Your task to perform on an android device: find photos in the google photos app Image 0: 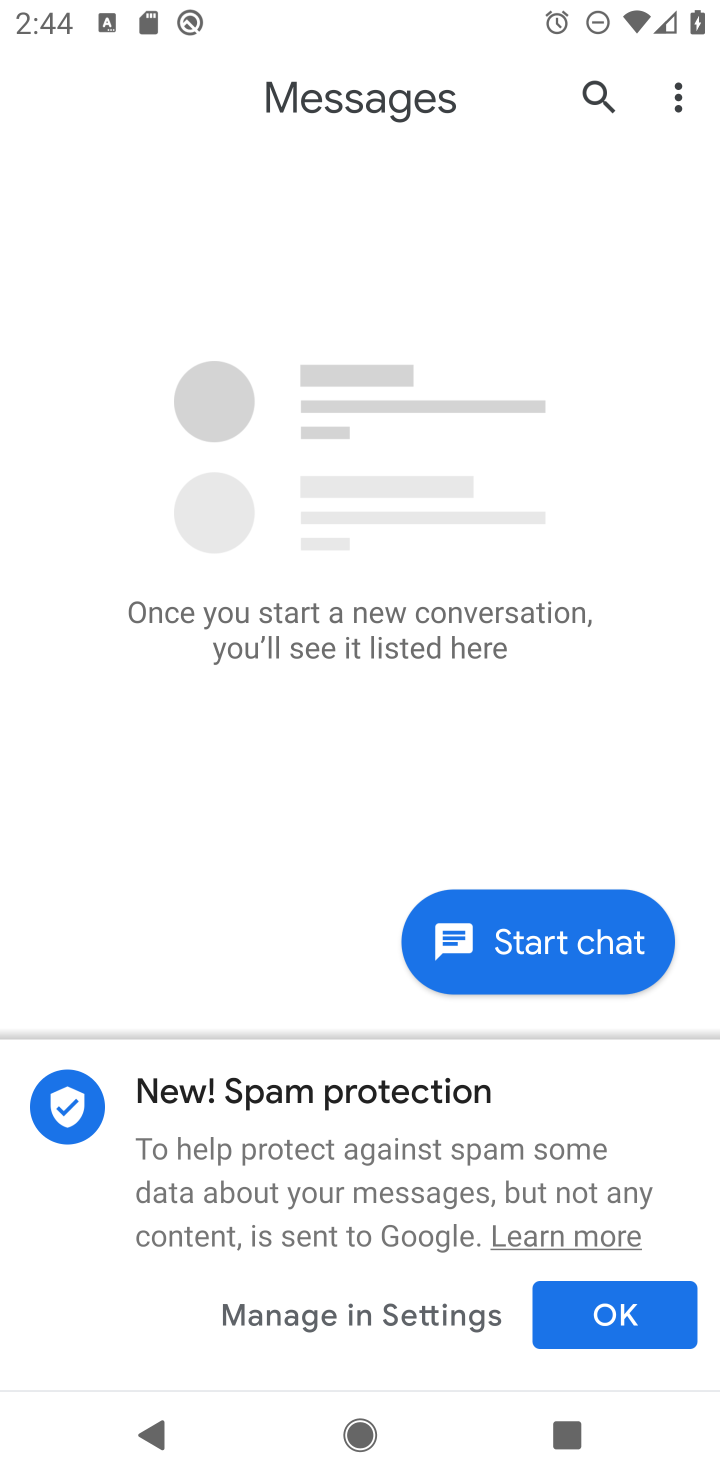
Step 0: press home button
Your task to perform on an android device: find photos in the google photos app Image 1: 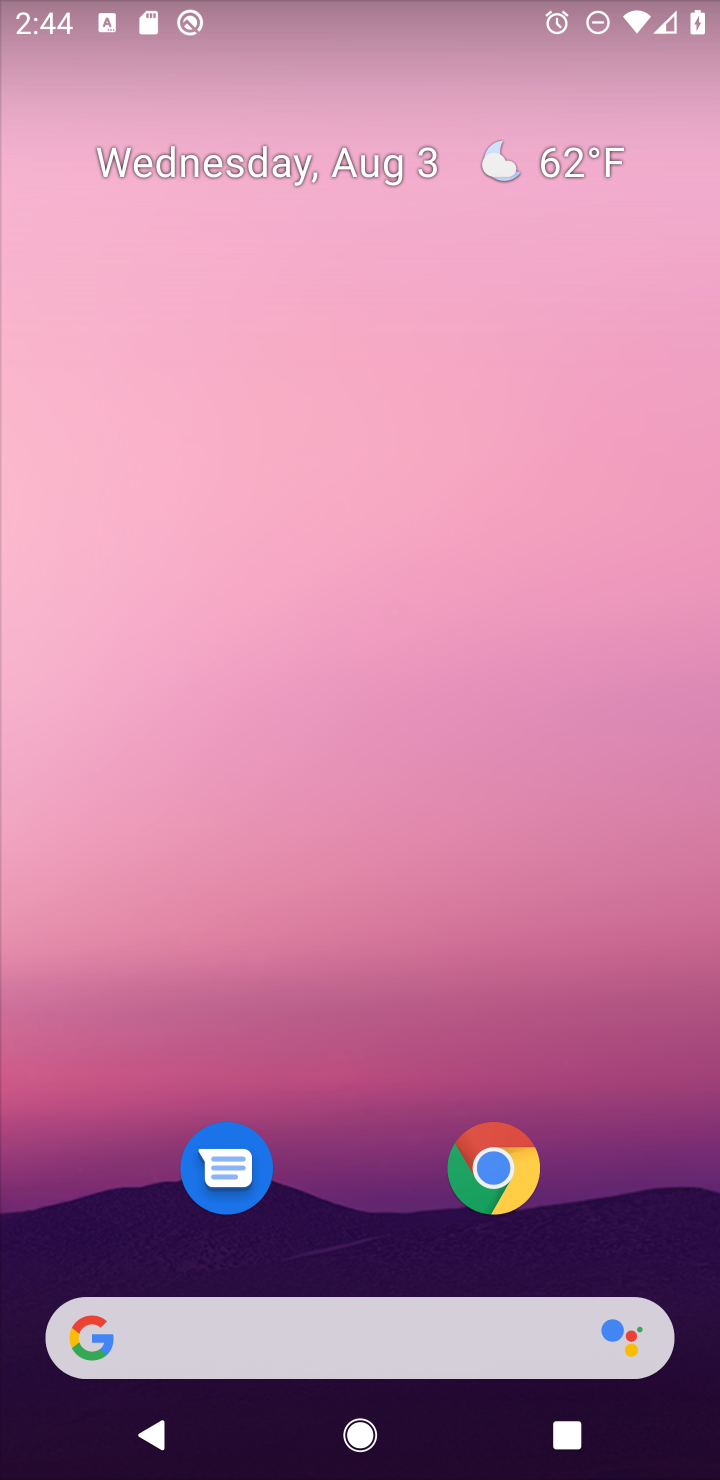
Step 1: drag from (634, 1237) to (588, 215)
Your task to perform on an android device: find photos in the google photos app Image 2: 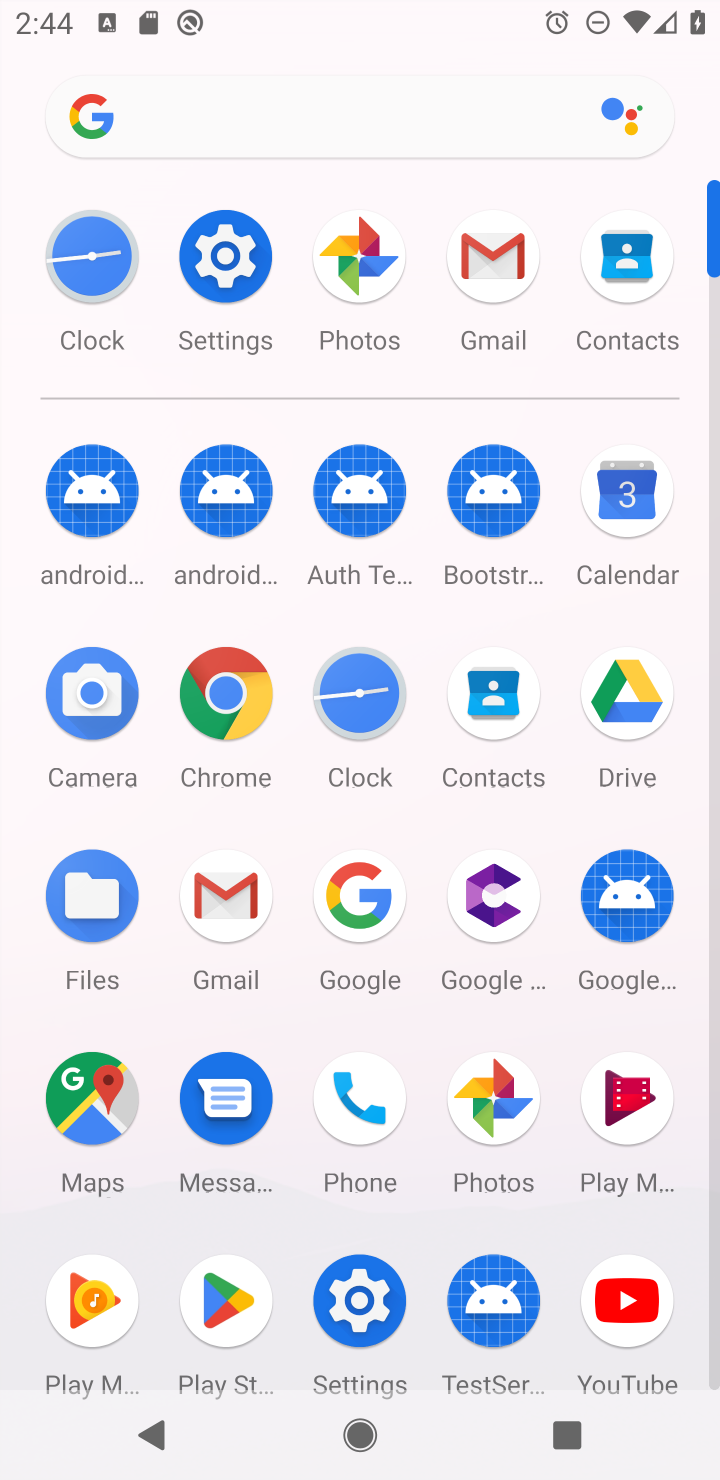
Step 2: click (497, 1097)
Your task to perform on an android device: find photos in the google photos app Image 3: 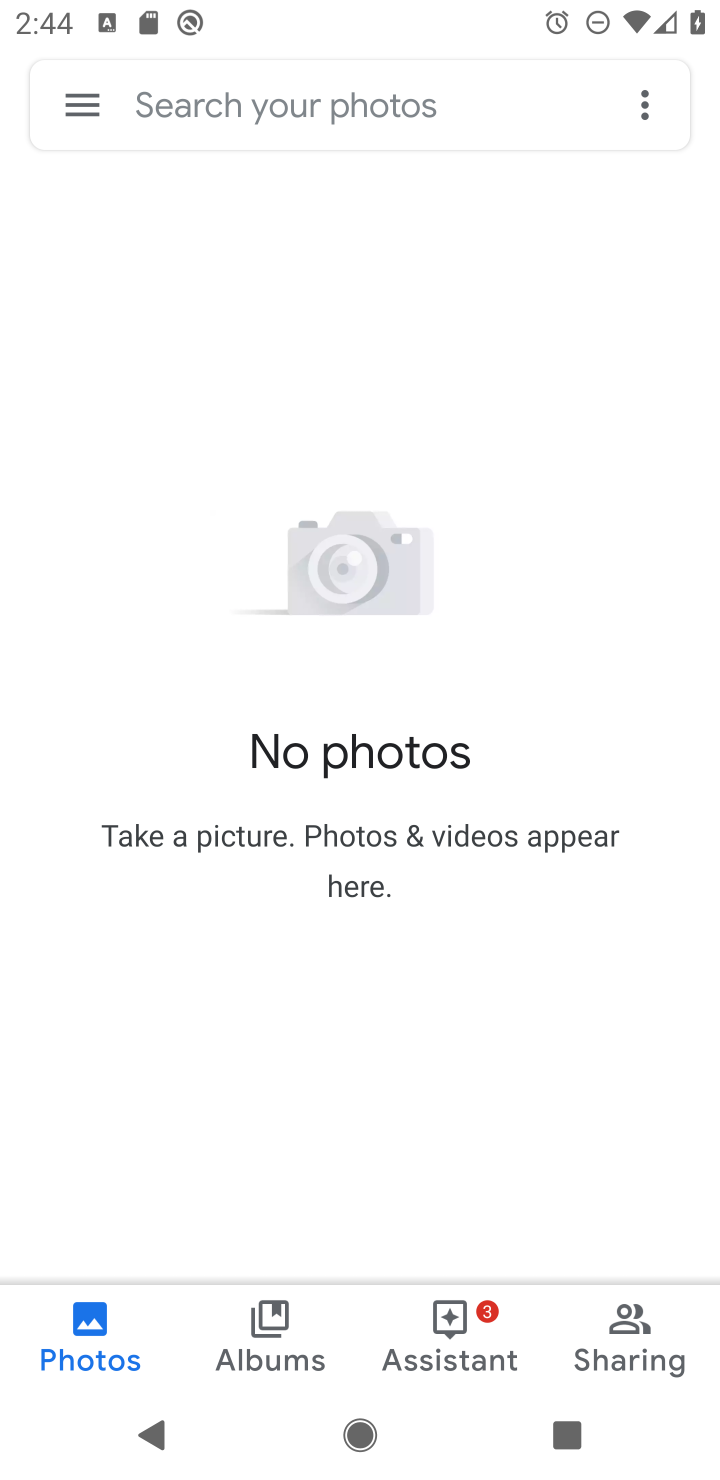
Step 3: task complete